Your task to perform on an android device: What's the weather today? Image 0: 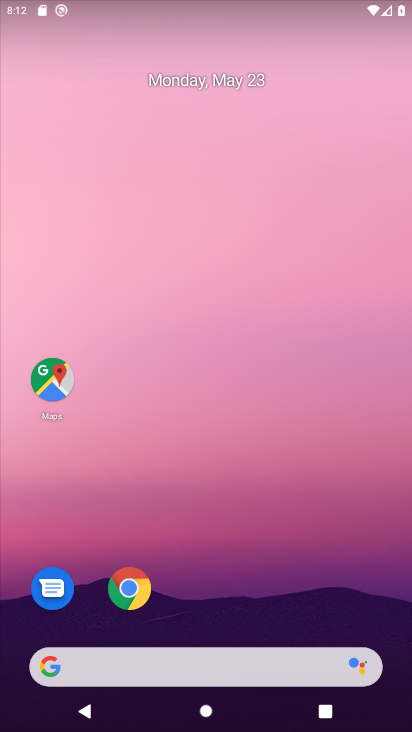
Step 0: click (130, 583)
Your task to perform on an android device: What's the weather today? Image 1: 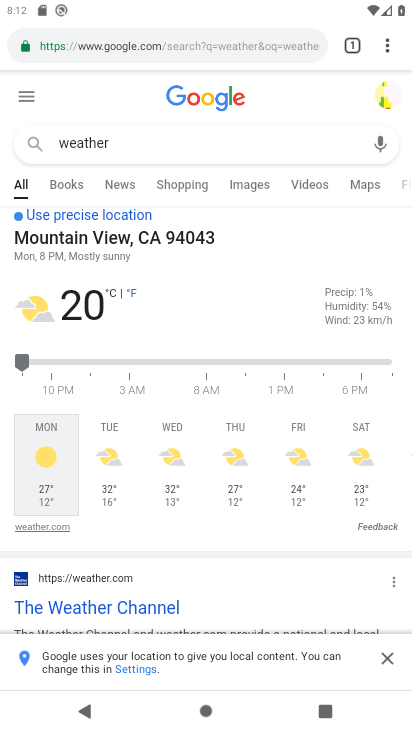
Step 1: click (180, 41)
Your task to perform on an android device: What's the weather today? Image 2: 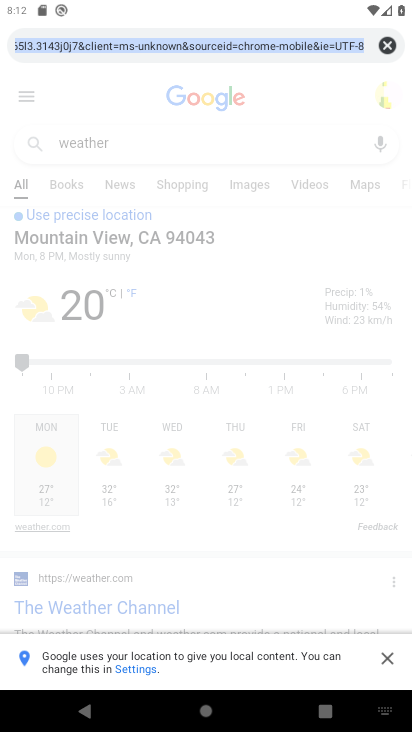
Step 2: type "weather"
Your task to perform on an android device: What's the weather today? Image 3: 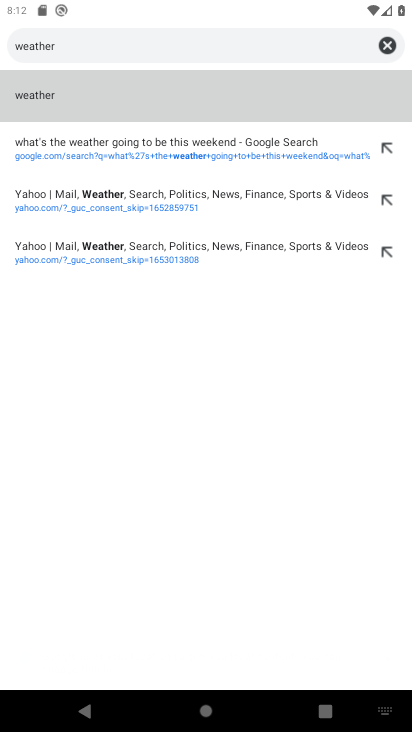
Step 3: click (269, 90)
Your task to perform on an android device: What's the weather today? Image 4: 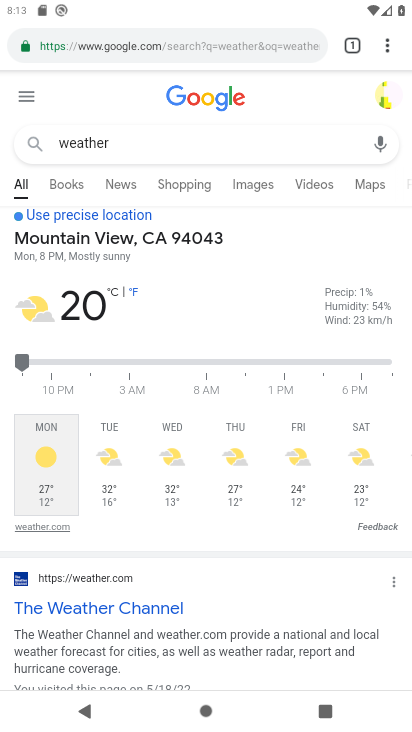
Step 4: task complete